Your task to perform on an android device: install app "Facebook" Image 0: 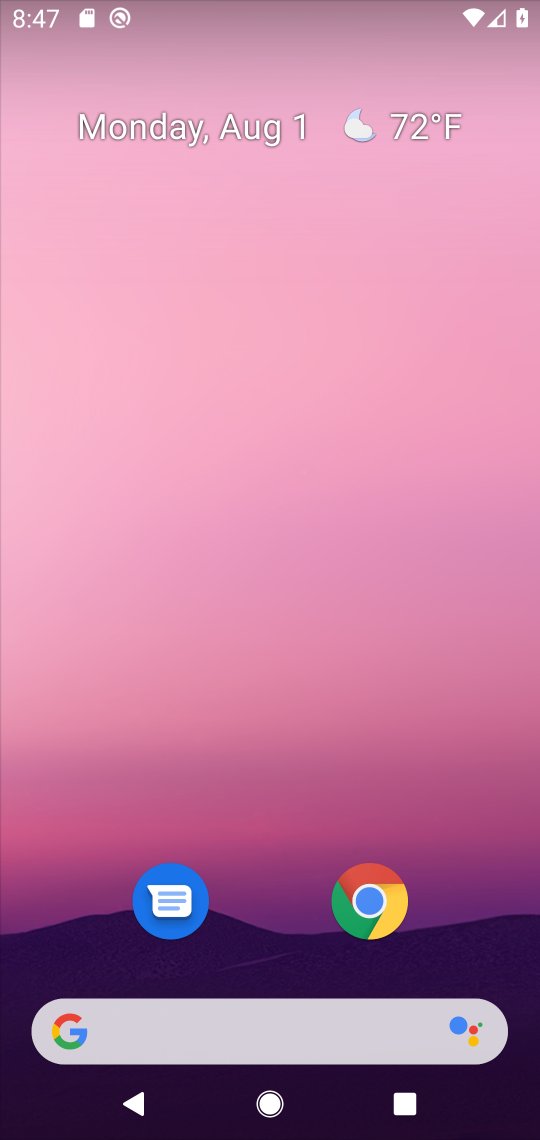
Step 0: drag from (76, 286) to (169, 4)
Your task to perform on an android device: install app "Facebook" Image 1: 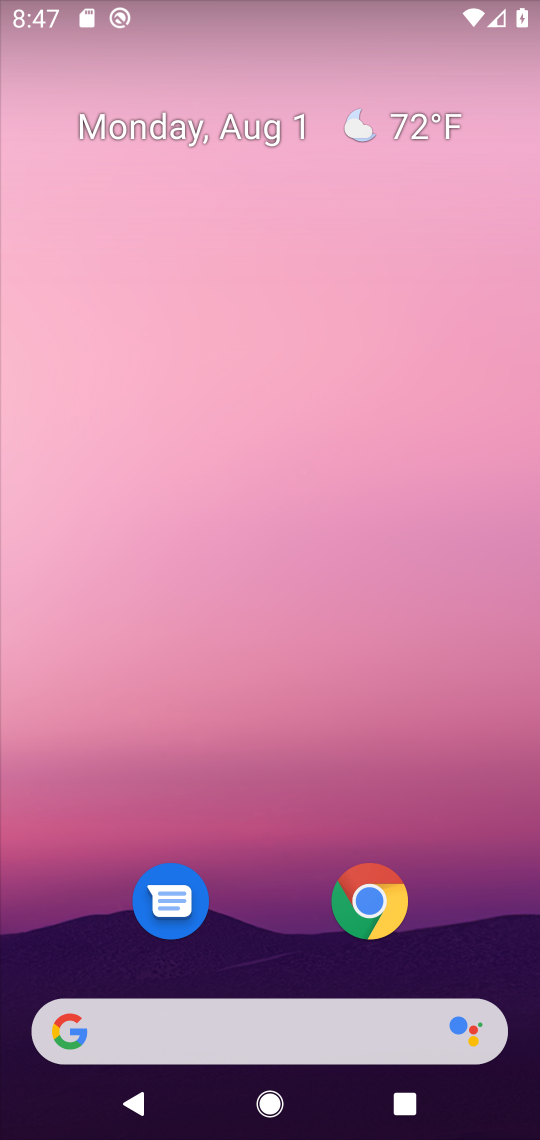
Step 1: drag from (314, 763) to (274, 8)
Your task to perform on an android device: install app "Facebook" Image 2: 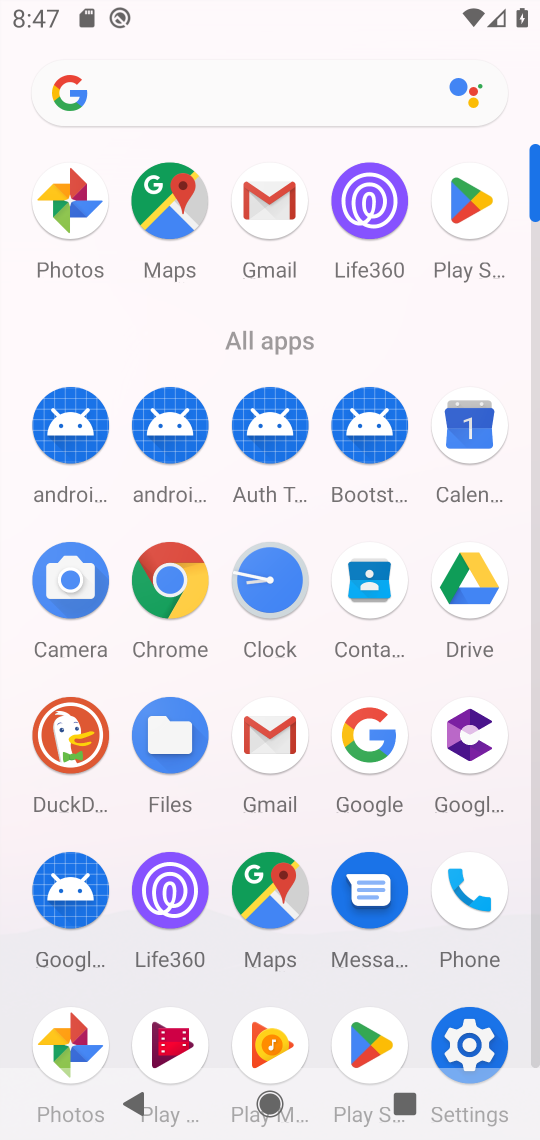
Step 2: click (463, 224)
Your task to perform on an android device: install app "Facebook" Image 3: 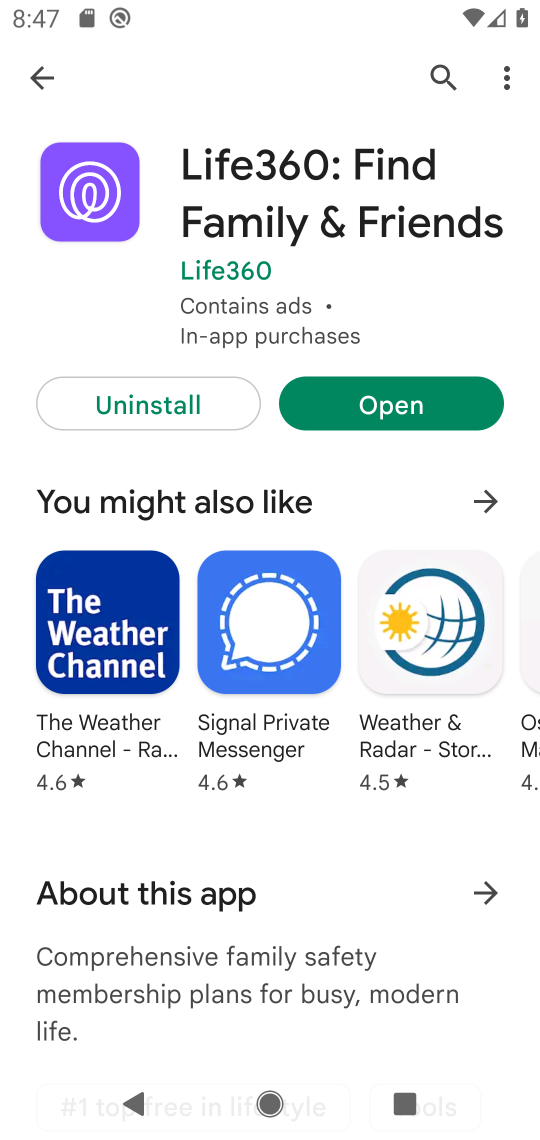
Step 3: click (440, 80)
Your task to perform on an android device: install app "Facebook" Image 4: 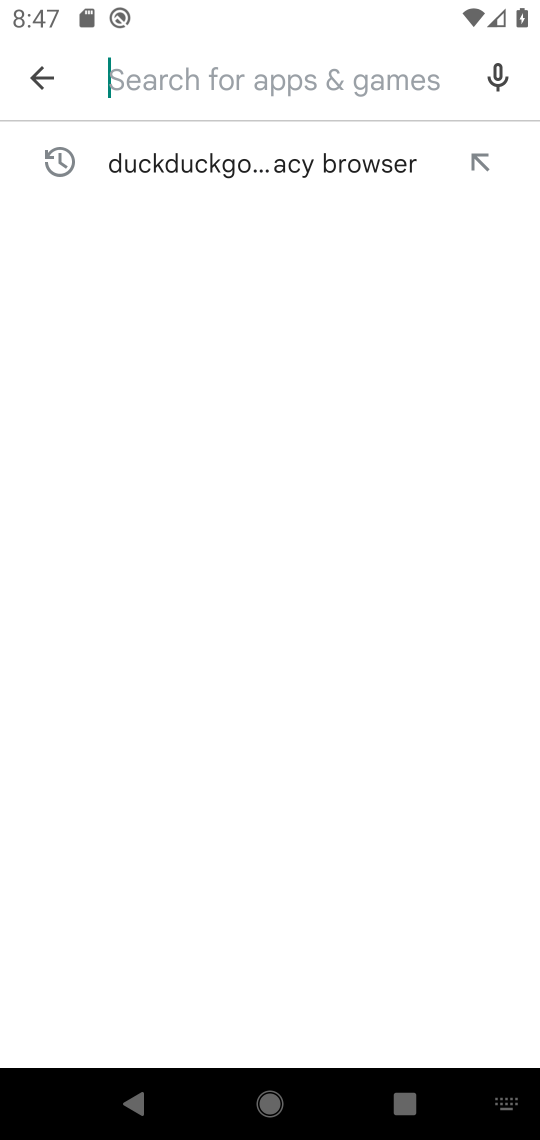
Step 4: type "facebook"
Your task to perform on an android device: install app "Facebook" Image 5: 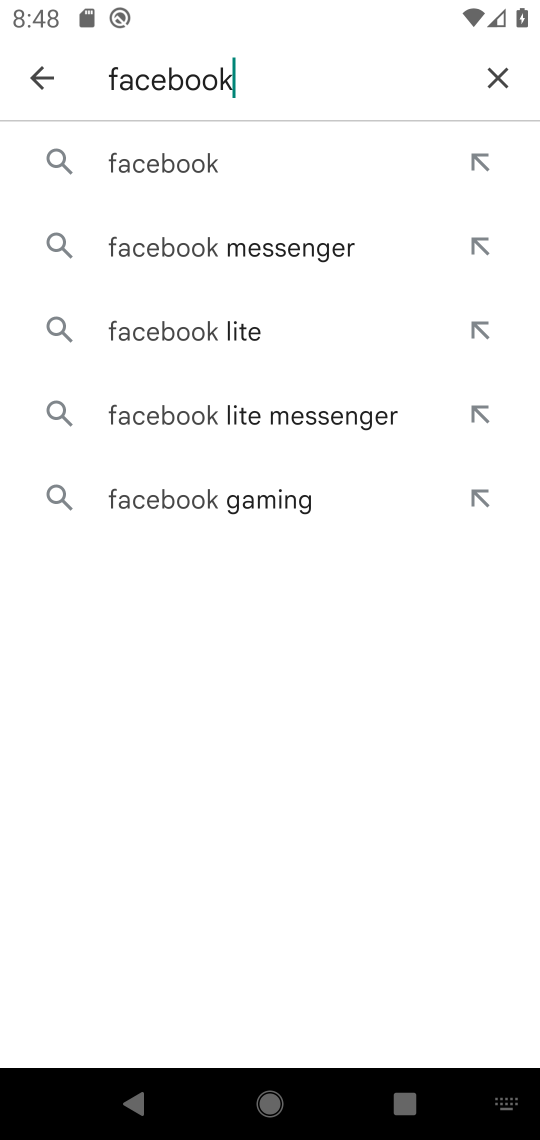
Step 5: click (374, 167)
Your task to perform on an android device: install app "Facebook" Image 6: 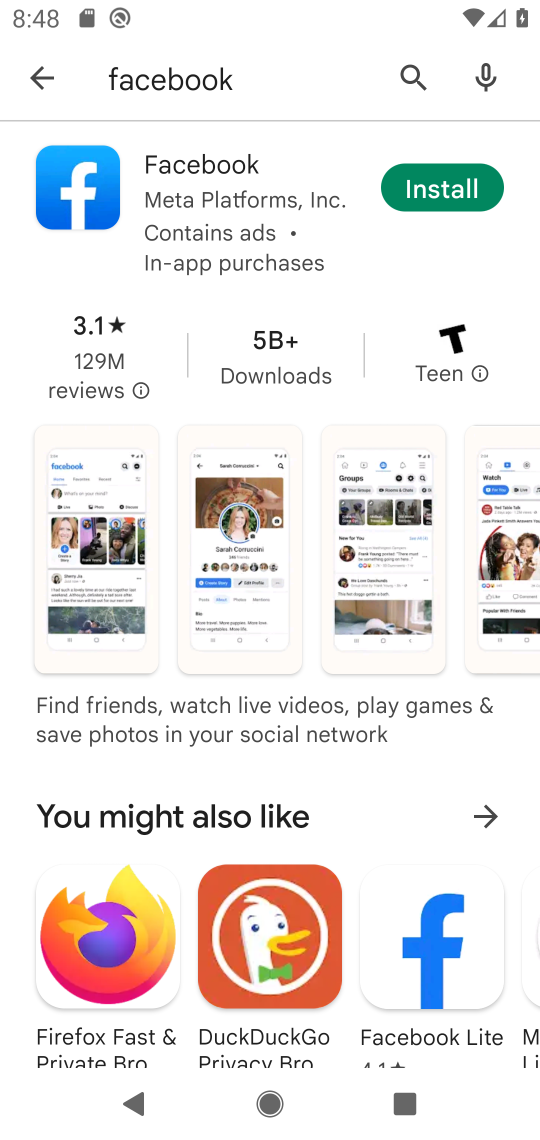
Step 6: click (189, 163)
Your task to perform on an android device: install app "Facebook" Image 7: 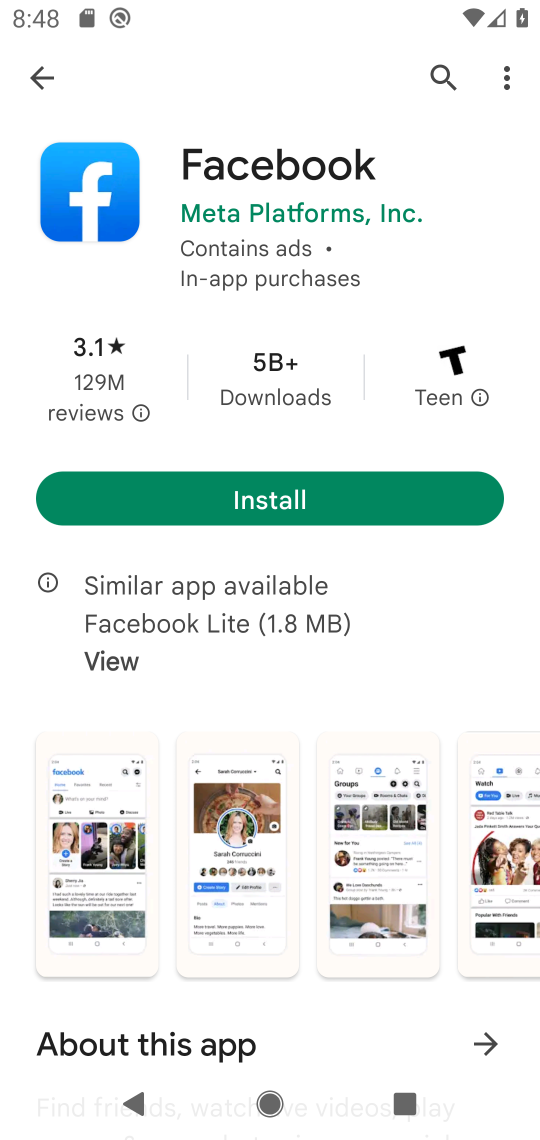
Step 7: click (256, 508)
Your task to perform on an android device: install app "Facebook" Image 8: 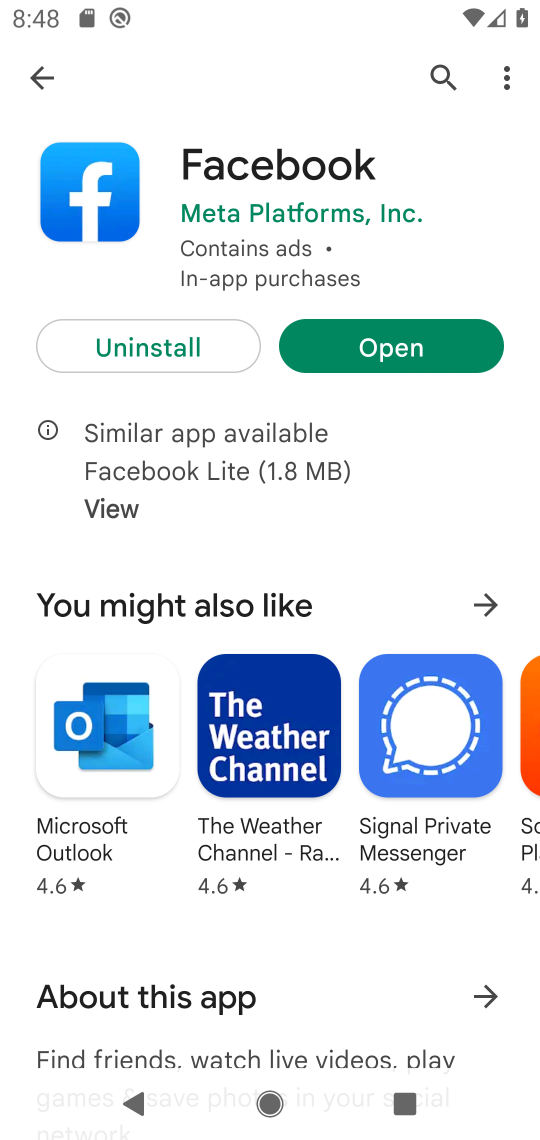
Step 8: task complete